Your task to perform on an android device: change the clock display to analog Image 0: 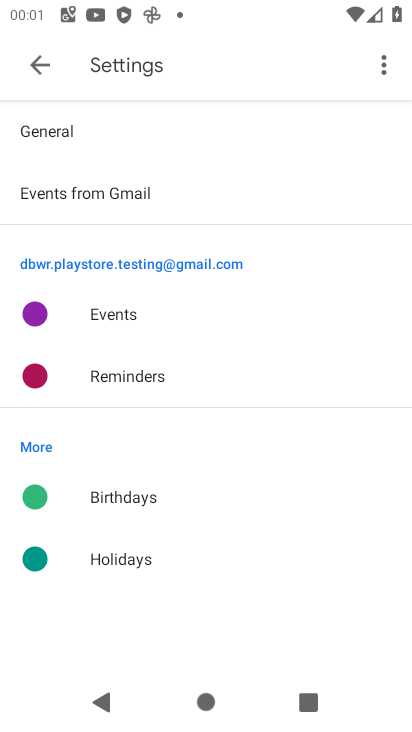
Step 0: press home button
Your task to perform on an android device: change the clock display to analog Image 1: 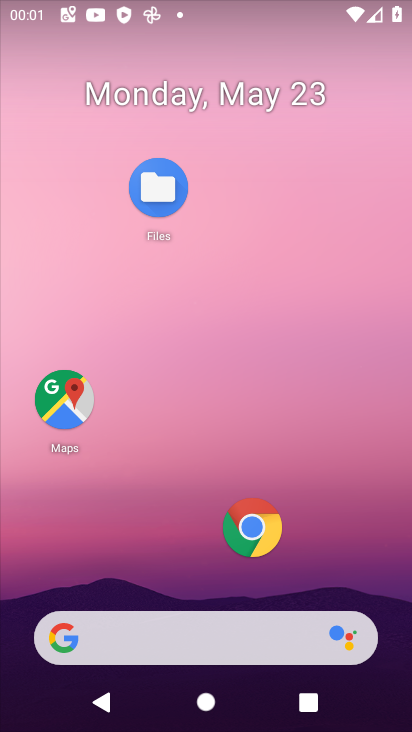
Step 1: drag from (170, 537) to (146, 2)
Your task to perform on an android device: change the clock display to analog Image 2: 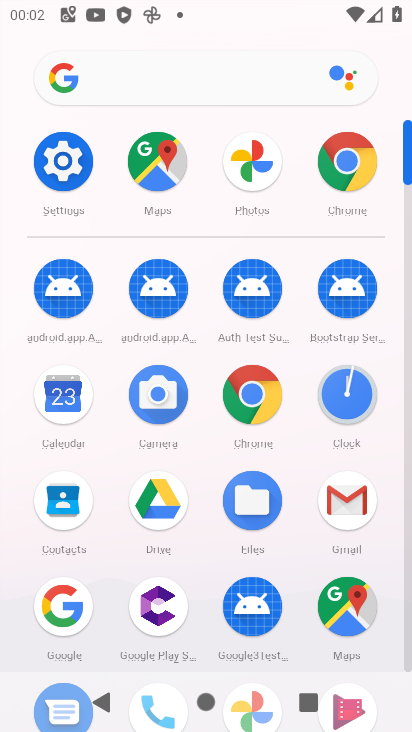
Step 2: click (355, 401)
Your task to perform on an android device: change the clock display to analog Image 3: 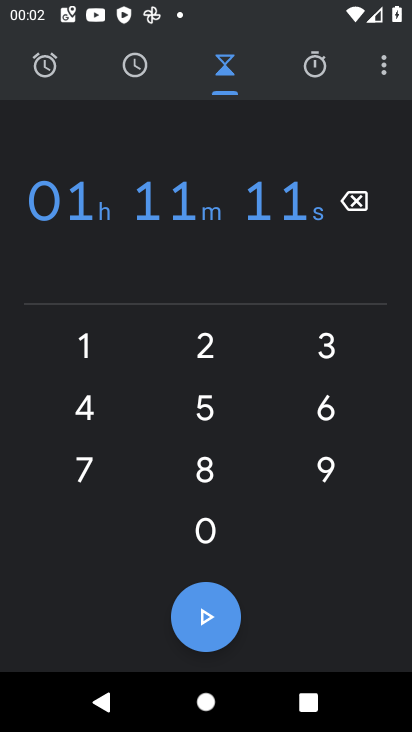
Step 3: click (384, 64)
Your task to perform on an android device: change the clock display to analog Image 4: 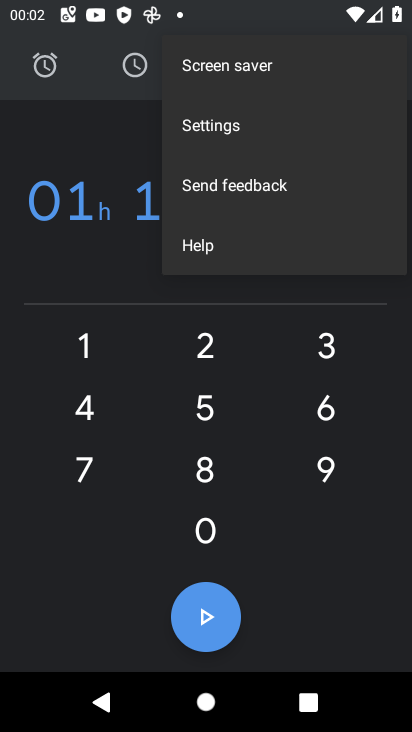
Step 4: click (219, 125)
Your task to perform on an android device: change the clock display to analog Image 5: 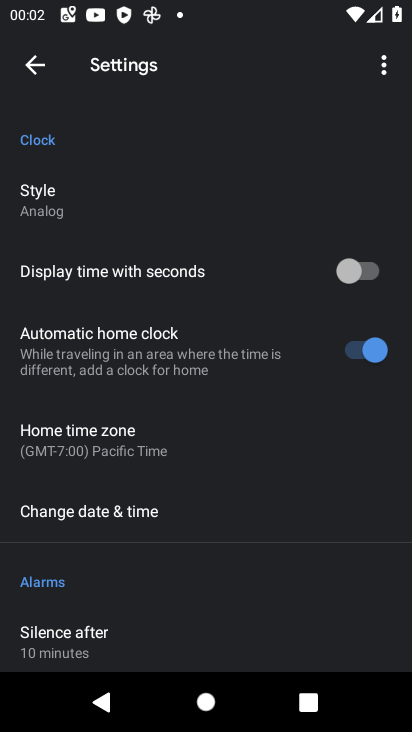
Step 5: click (34, 193)
Your task to perform on an android device: change the clock display to analog Image 6: 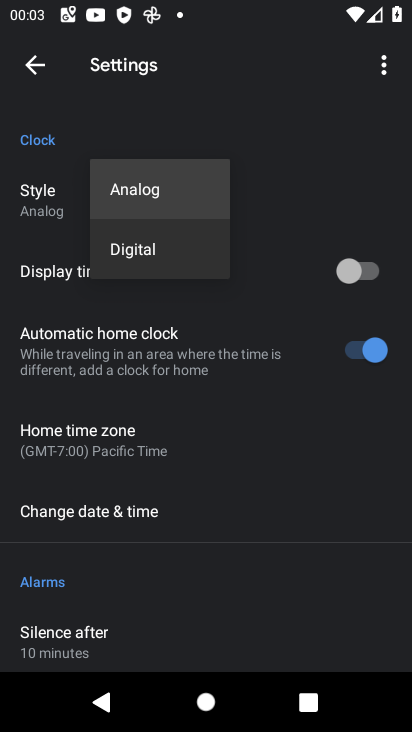
Step 6: click (155, 245)
Your task to perform on an android device: change the clock display to analog Image 7: 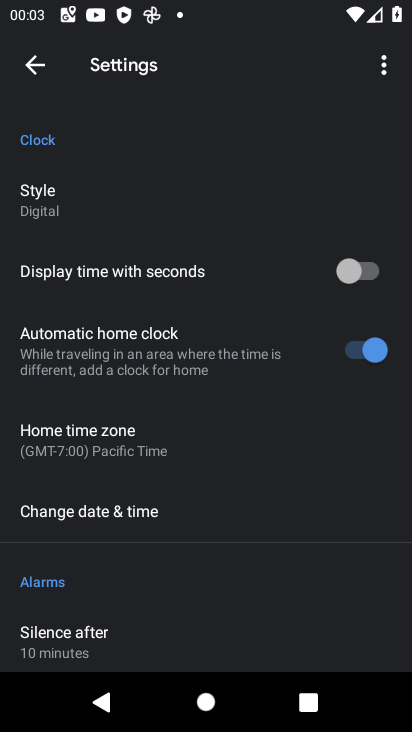
Step 7: task complete